Your task to perform on an android device: turn on sleep mode Image 0: 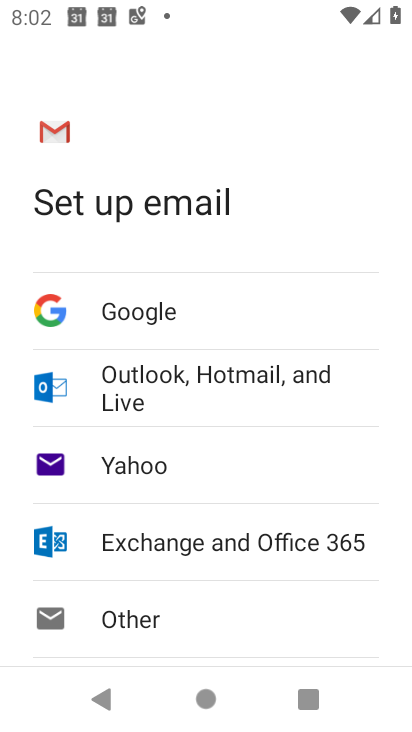
Step 0: press home button
Your task to perform on an android device: turn on sleep mode Image 1: 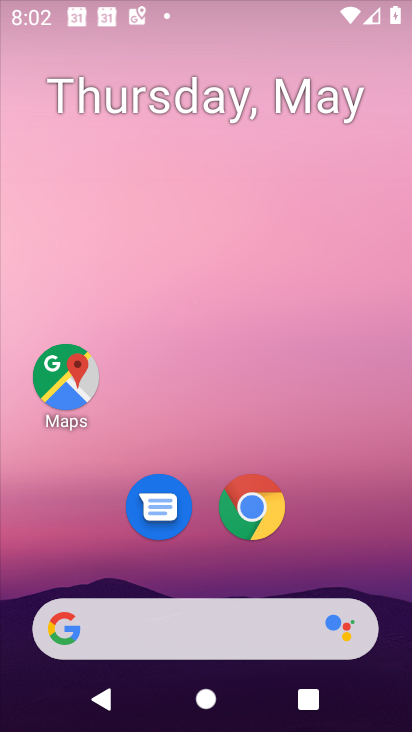
Step 1: drag from (266, 658) to (182, 240)
Your task to perform on an android device: turn on sleep mode Image 2: 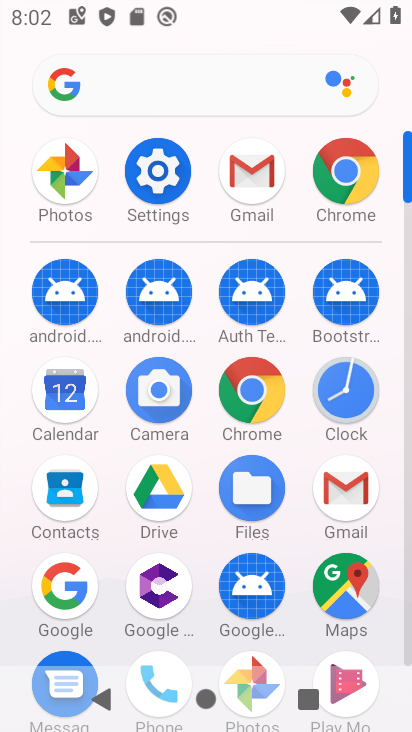
Step 2: click (148, 178)
Your task to perform on an android device: turn on sleep mode Image 3: 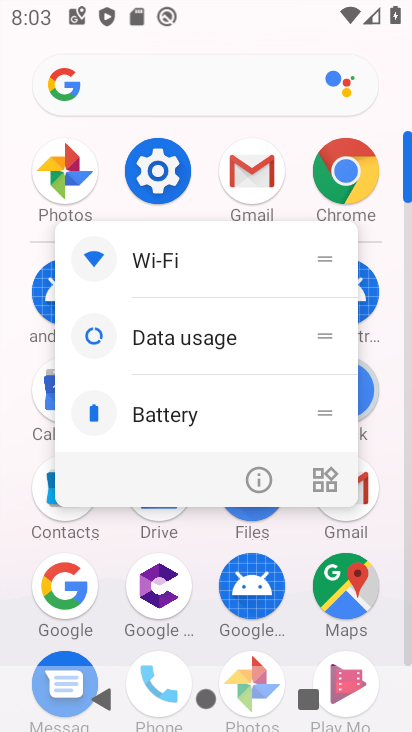
Step 3: click (149, 171)
Your task to perform on an android device: turn on sleep mode Image 4: 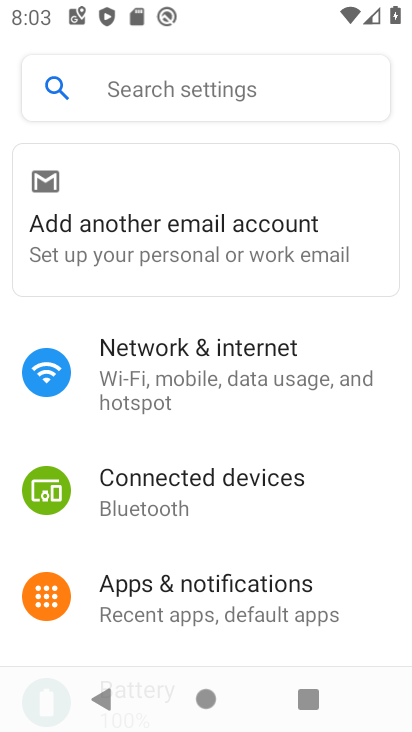
Step 4: click (145, 81)
Your task to perform on an android device: turn on sleep mode Image 5: 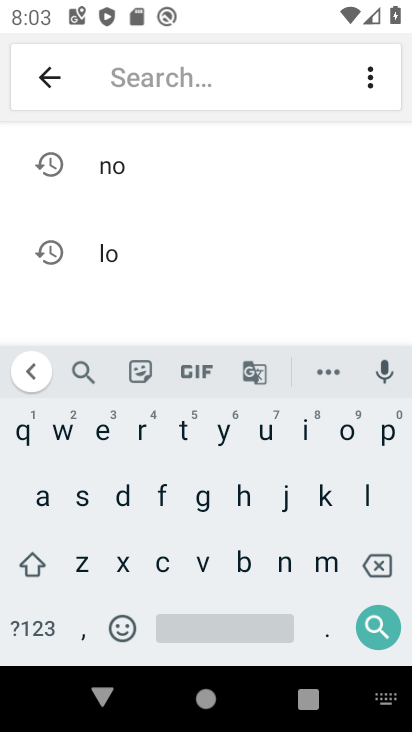
Step 5: click (82, 487)
Your task to perform on an android device: turn on sleep mode Image 6: 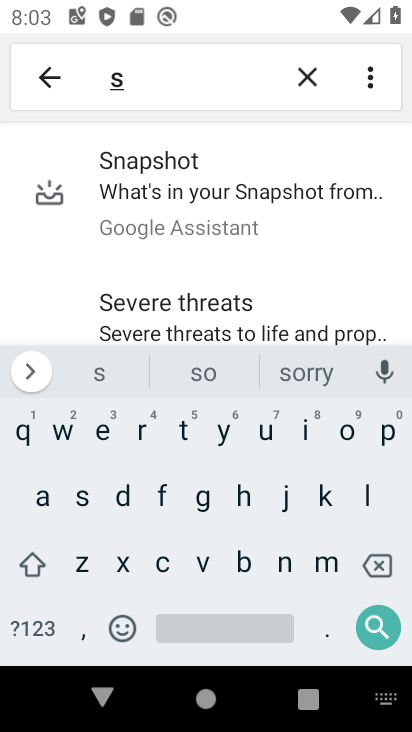
Step 6: click (367, 487)
Your task to perform on an android device: turn on sleep mode Image 7: 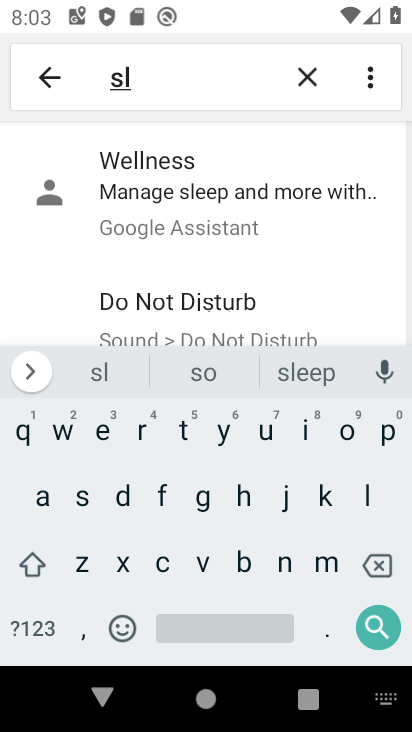
Step 7: click (100, 435)
Your task to perform on an android device: turn on sleep mode Image 8: 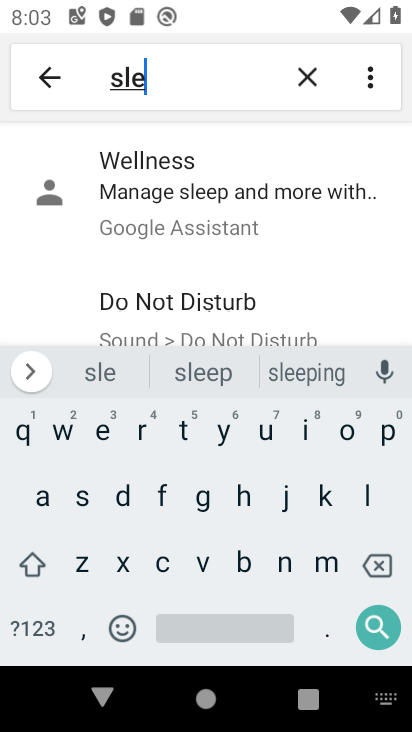
Step 8: click (246, 196)
Your task to perform on an android device: turn on sleep mode Image 9: 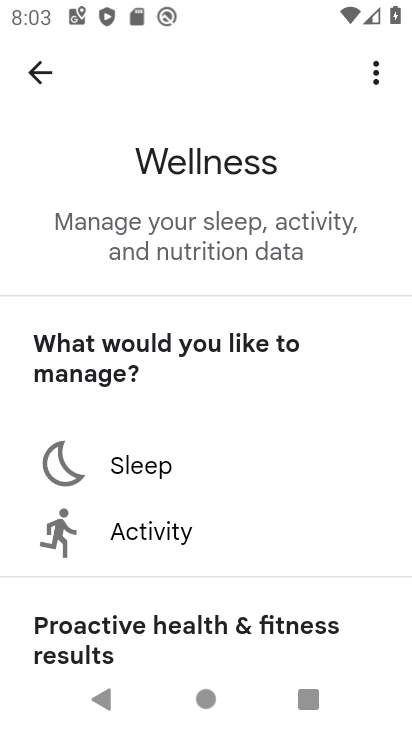
Step 9: click (114, 457)
Your task to perform on an android device: turn on sleep mode Image 10: 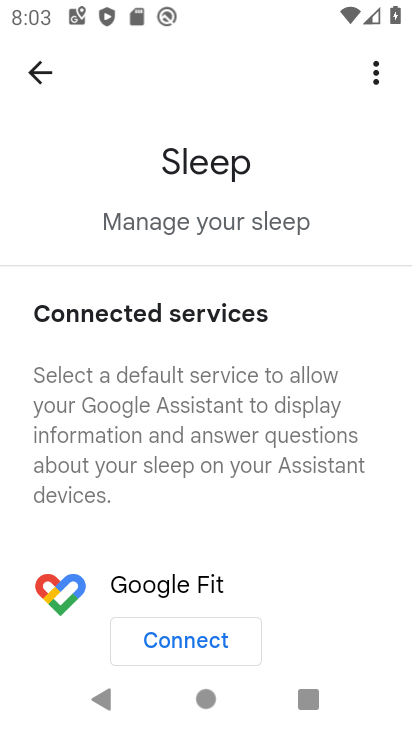
Step 10: task complete